Your task to perform on an android device: turn on sleep mode Image 0: 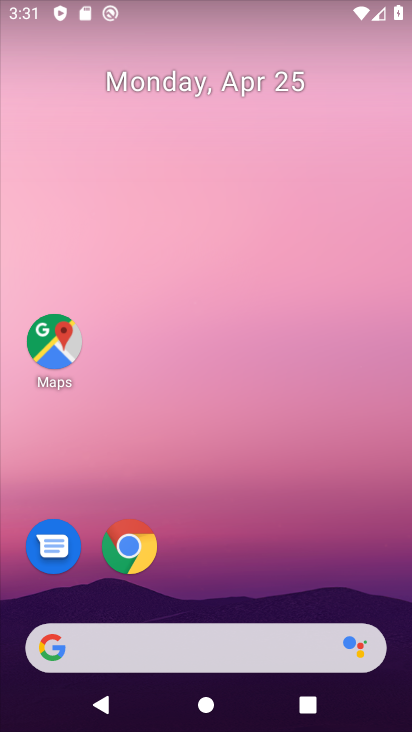
Step 0: drag from (249, 579) to (318, 54)
Your task to perform on an android device: turn on sleep mode Image 1: 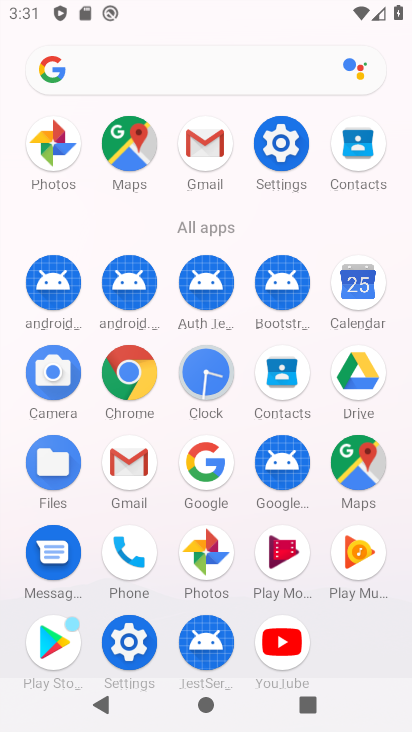
Step 1: click (133, 646)
Your task to perform on an android device: turn on sleep mode Image 2: 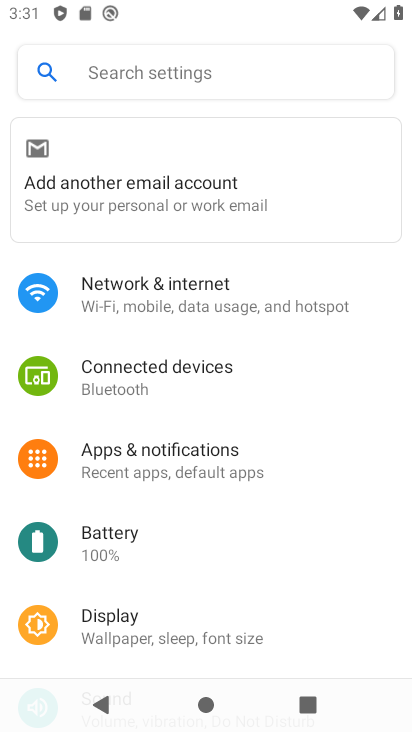
Step 2: click (162, 624)
Your task to perform on an android device: turn on sleep mode Image 3: 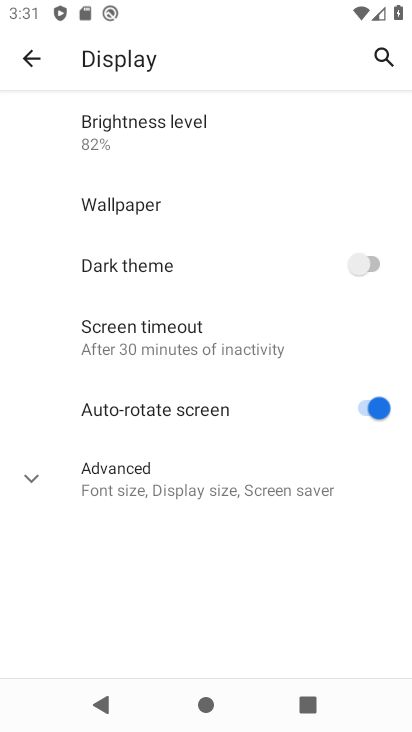
Step 3: click (194, 474)
Your task to perform on an android device: turn on sleep mode Image 4: 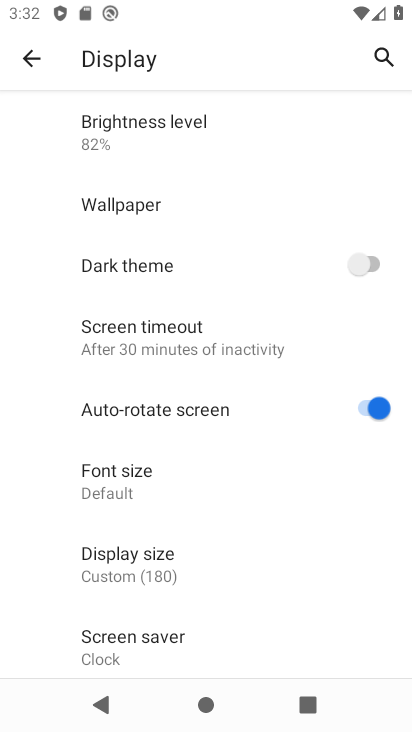
Step 4: task complete